Your task to perform on an android device: delete a single message in the gmail app Image 0: 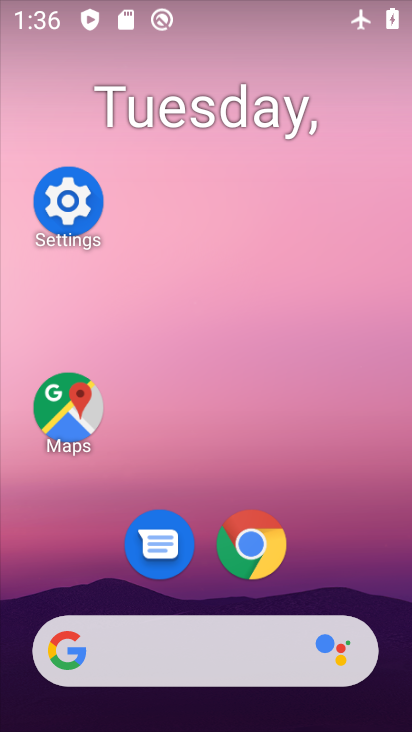
Step 0: drag from (331, 452) to (335, 114)
Your task to perform on an android device: delete a single message in the gmail app Image 1: 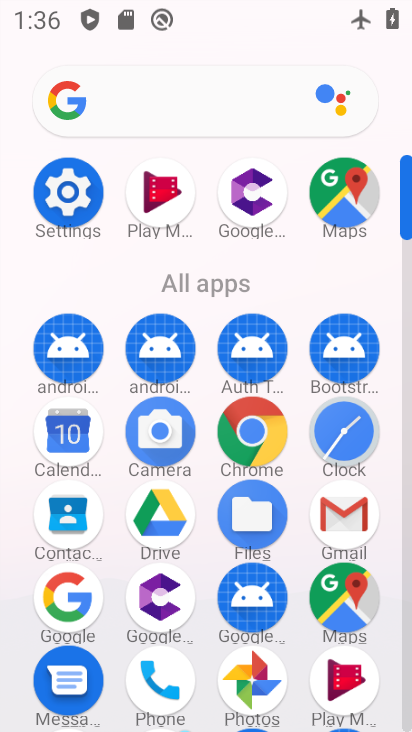
Step 1: drag from (346, 517) to (106, 306)
Your task to perform on an android device: delete a single message in the gmail app Image 2: 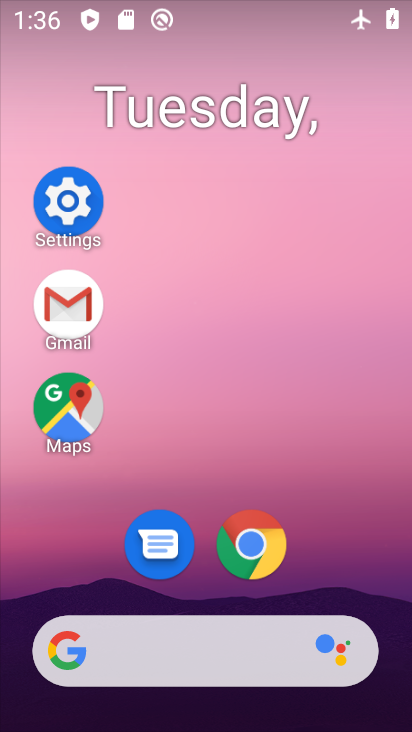
Step 2: click (82, 299)
Your task to perform on an android device: delete a single message in the gmail app Image 3: 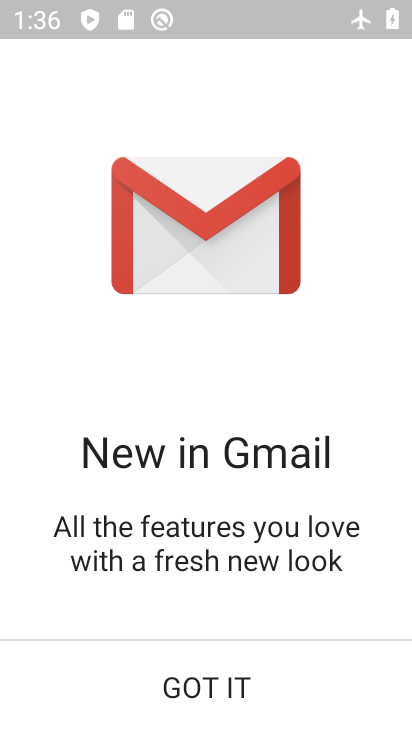
Step 3: click (219, 686)
Your task to perform on an android device: delete a single message in the gmail app Image 4: 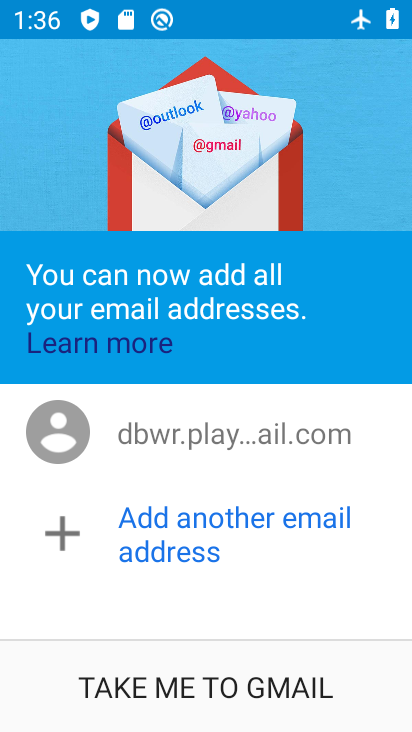
Step 4: click (219, 686)
Your task to perform on an android device: delete a single message in the gmail app Image 5: 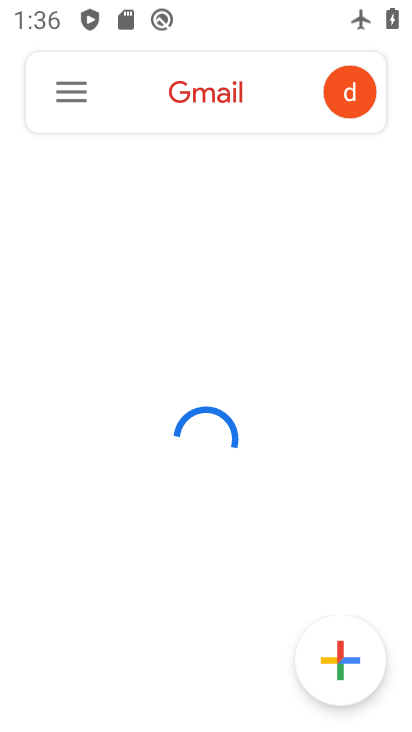
Step 5: click (62, 90)
Your task to perform on an android device: delete a single message in the gmail app Image 6: 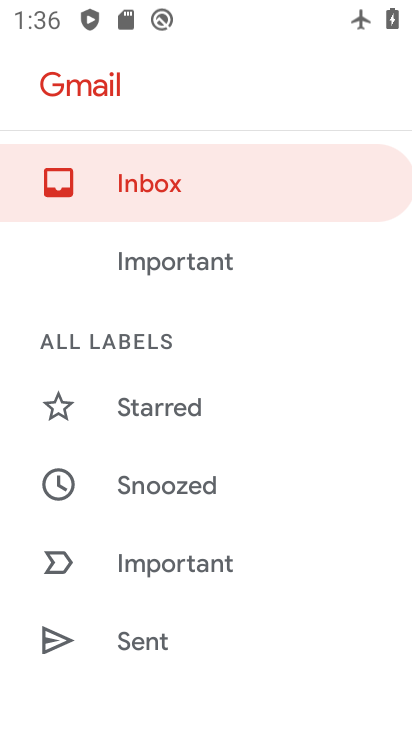
Step 6: drag from (245, 566) to (307, 181)
Your task to perform on an android device: delete a single message in the gmail app Image 7: 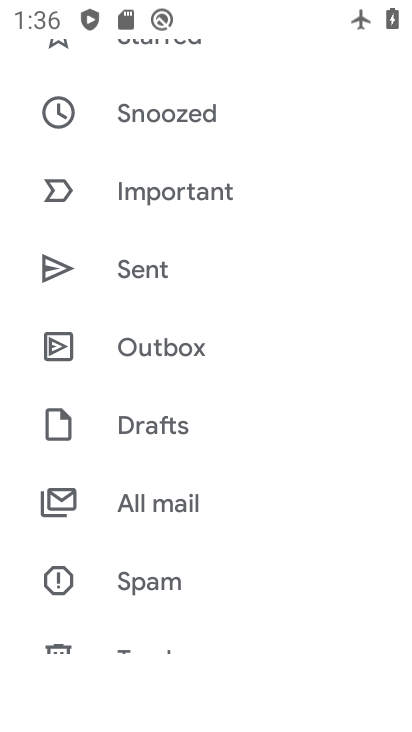
Step 7: click (191, 495)
Your task to perform on an android device: delete a single message in the gmail app Image 8: 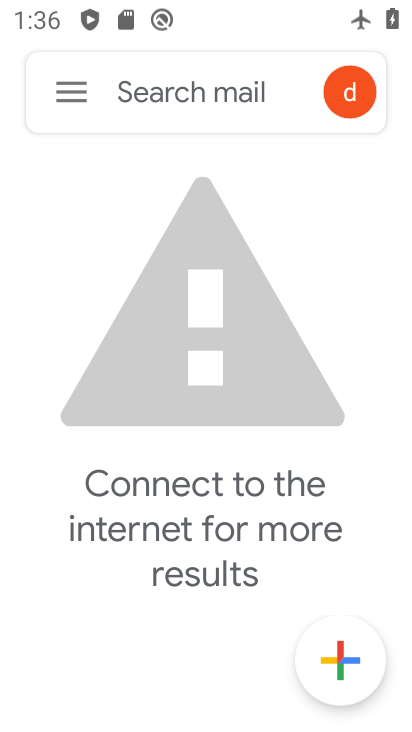
Step 8: task complete